Your task to perform on an android device: delete location history Image 0: 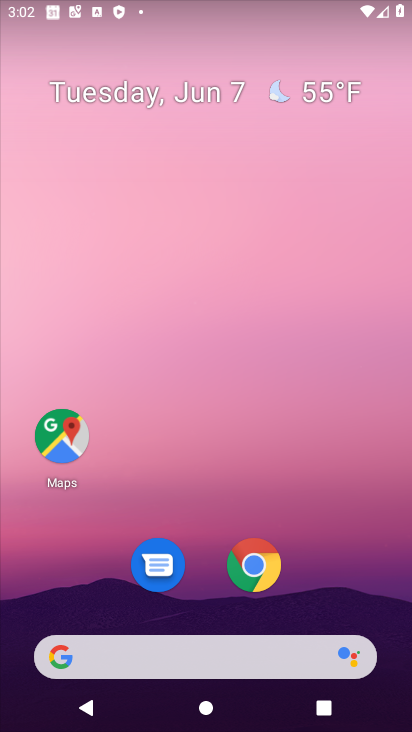
Step 0: drag from (336, 662) to (296, 68)
Your task to perform on an android device: delete location history Image 1: 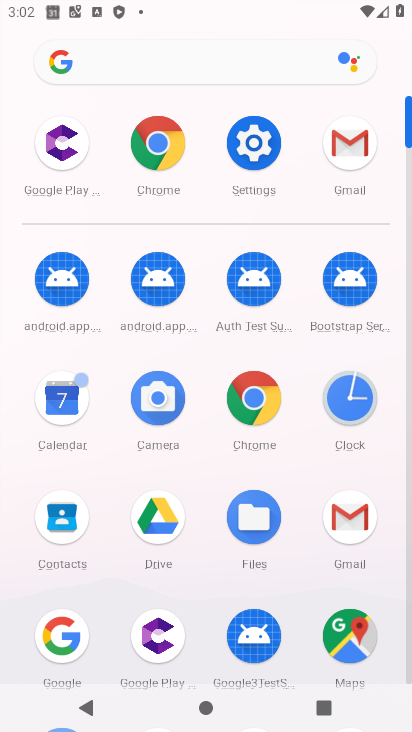
Step 1: click (337, 659)
Your task to perform on an android device: delete location history Image 2: 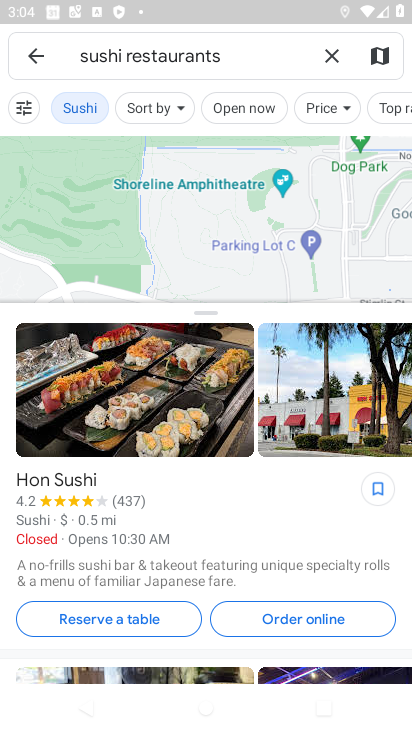
Step 2: press back button
Your task to perform on an android device: delete location history Image 3: 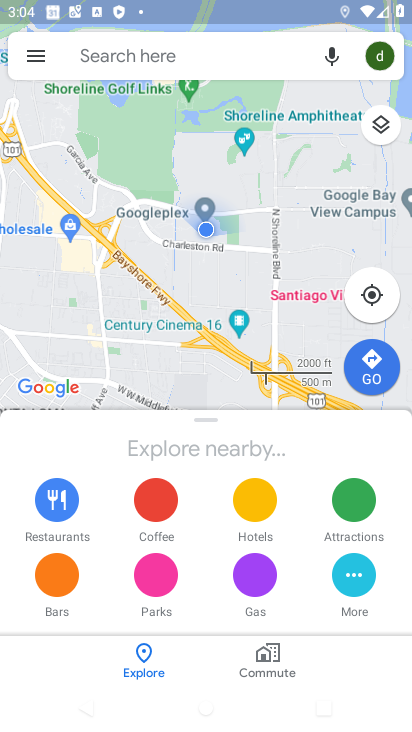
Step 3: click (26, 62)
Your task to perform on an android device: delete location history Image 4: 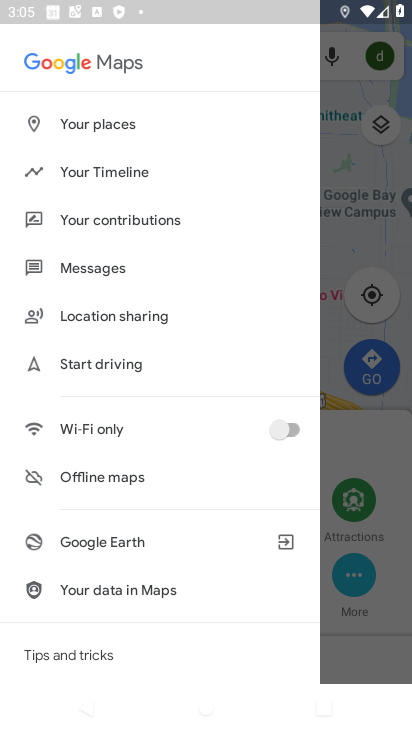
Step 4: drag from (103, 200) to (121, 582)
Your task to perform on an android device: delete location history Image 5: 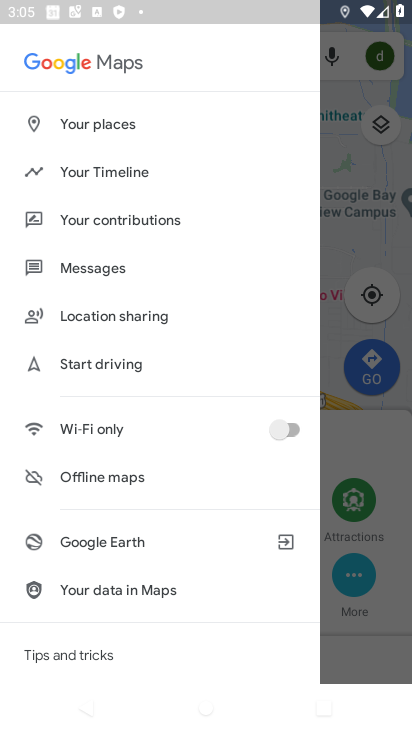
Step 5: click (106, 173)
Your task to perform on an android device: delete location history Image 6: 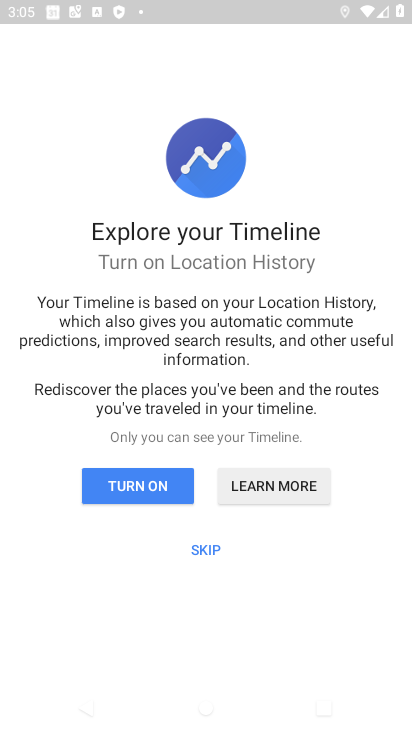
Step 6: click (219, 538)
Your task to perform on an android device: delete location history Image 7: 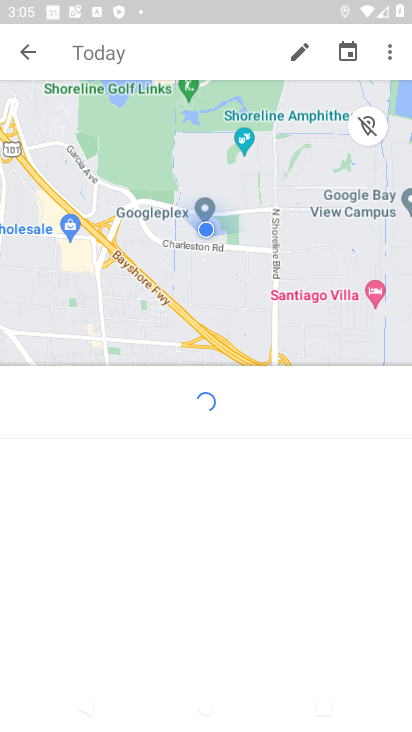
Step 7: click (391, 52)
Your task to perform on an android device: delete location history Image 8: 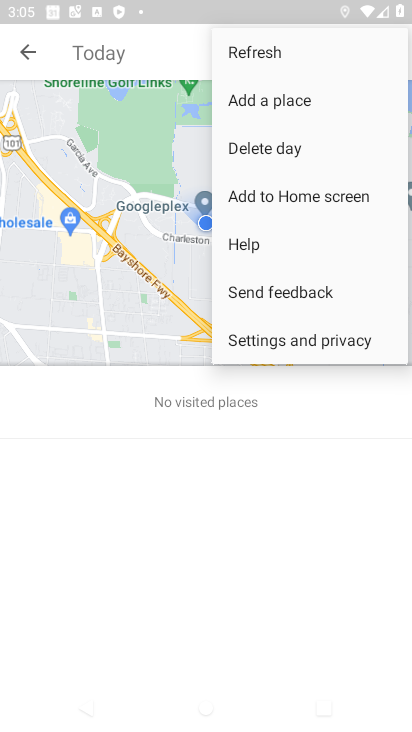
Step 8: click (273, 330)
Your task to perform on an android device: delete location history Image 9: 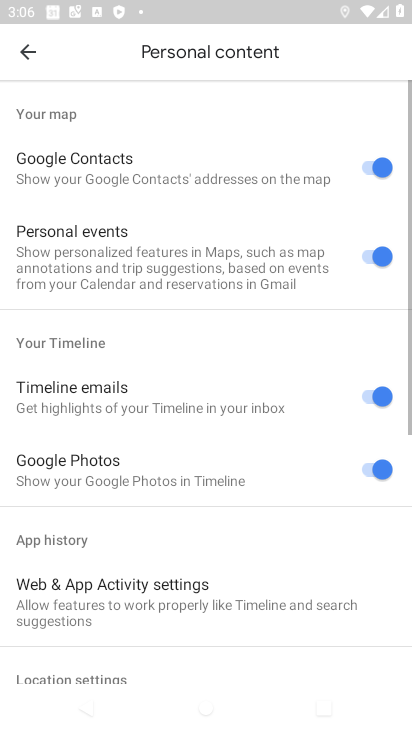
Step 9: drag from (163, 265) to (180, 707)
Your task to perform on an android device: delete location history Image 10: 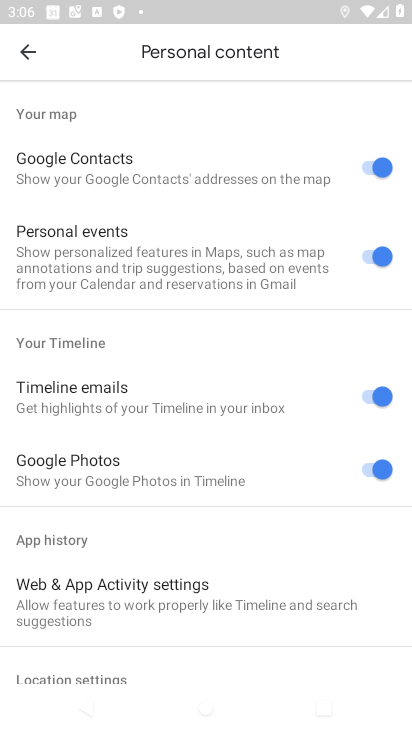
Step 10: drag from (184, 579) to (207, 159)
Your task to perform on an android device: delete location history Image 11: 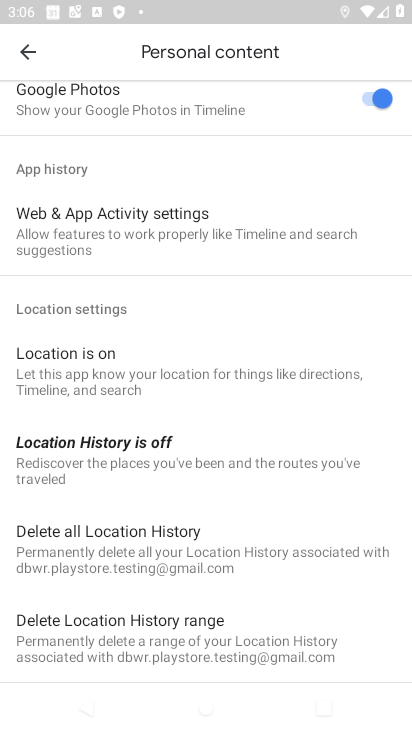
Step 11: click (149, 559)
Your task to perform on an android device: delete location history Image 12: 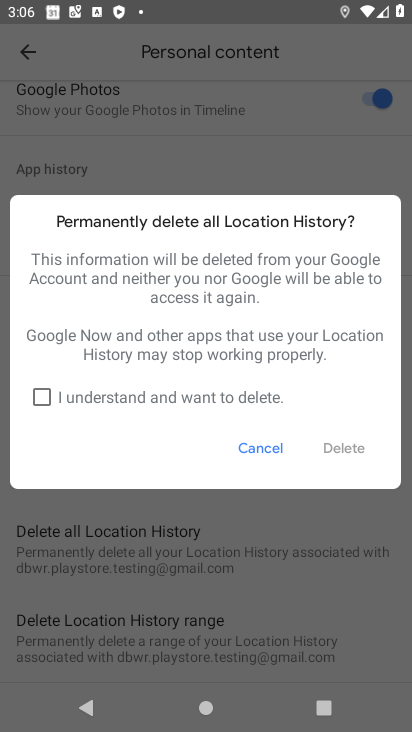
Step 12: click (41, 397)
Your task to perform on an android device: delete location history Image 13: 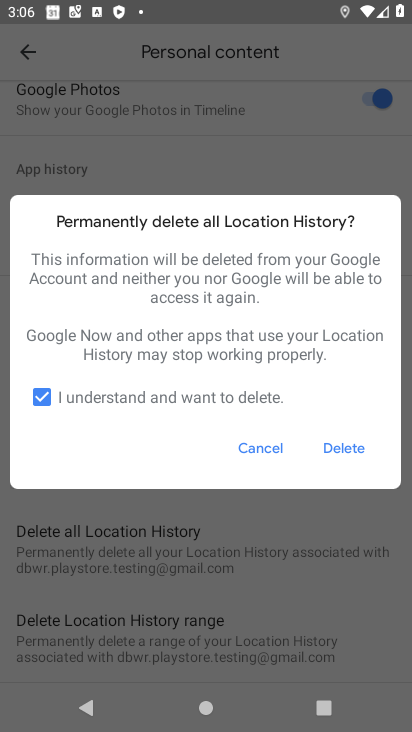
Step 13: click (344, 451)
Your task to perform on an android device: delete location history Image 14: 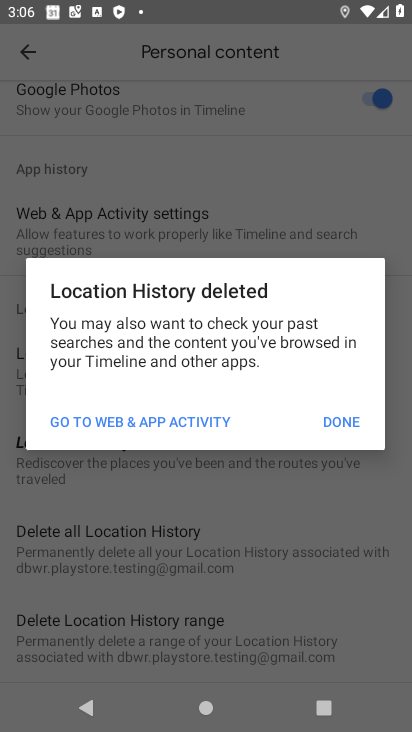
Step 14: task complete